Your task to perform on an android device: See recent photos Image 0: 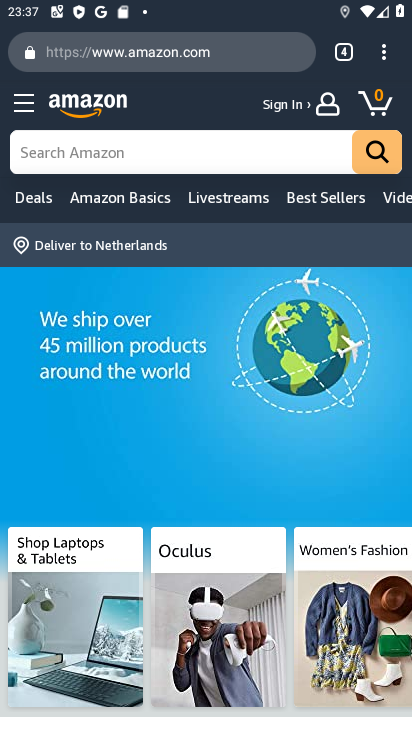
Step 0: press home button
Your task to perform on an android device: See recent photos Image 1: 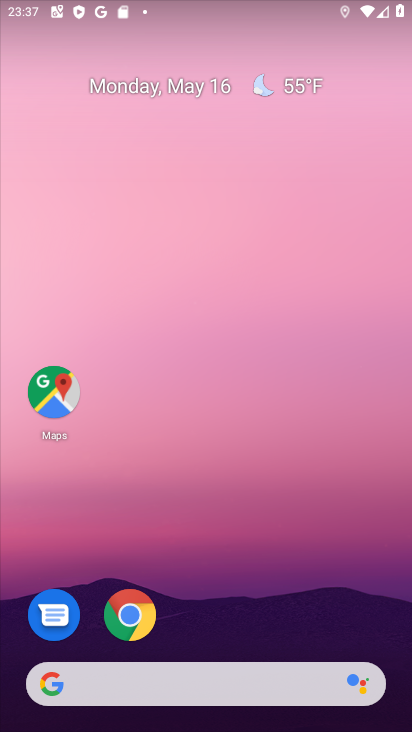
Step 1: drag from (211, 656) to (142, 48)
Your task to perform on an android device: See recent photos Image 2: 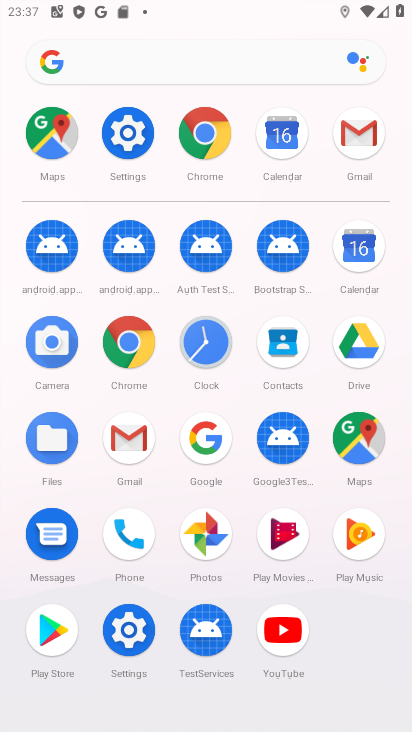
Step 2: click (232, 534)
Your task to perform on an android device: See recent photos Image 3: 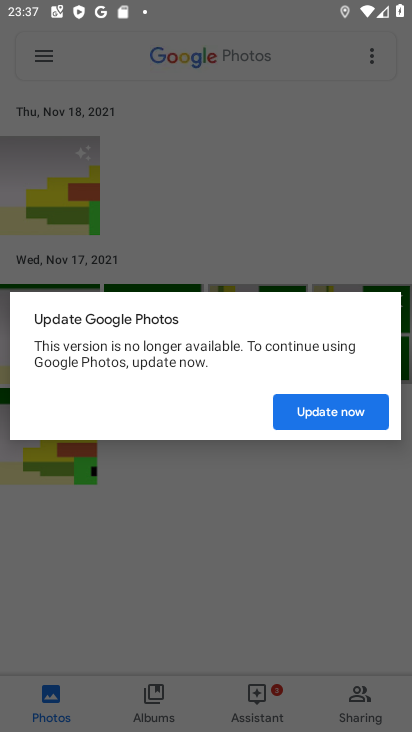
Step 3: click (338, 409)
Your task to perform on an android device: See recent photos Image 4: 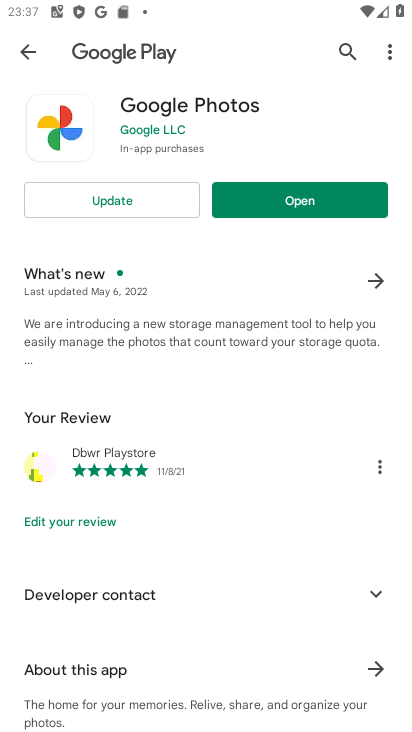
Step 4: click (327, 211)
Your task to perform on an android device: See recent photos Image 5: 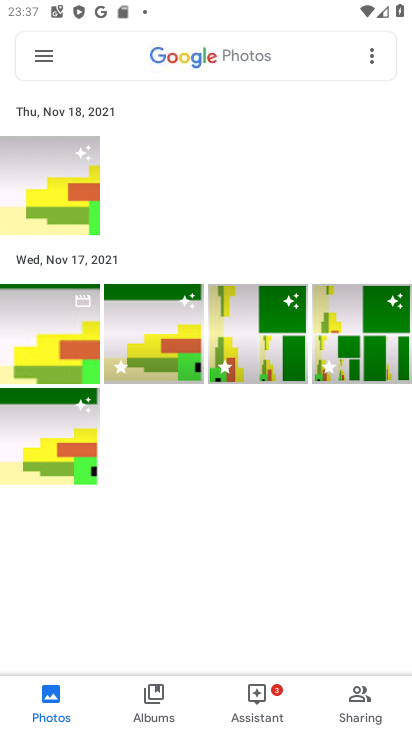
Step 5: task complete